Your task to perform on an android device: set default search engine in the chrome app Image 0: 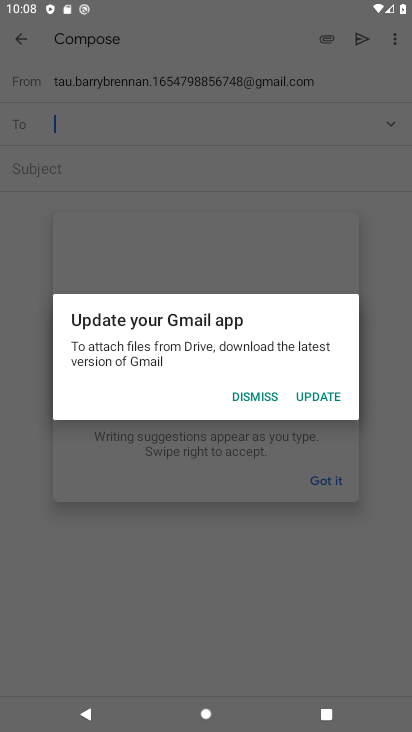
Step 0: press home button
Your task to perform on an android device: set default search engine in the chrome app Image 1: 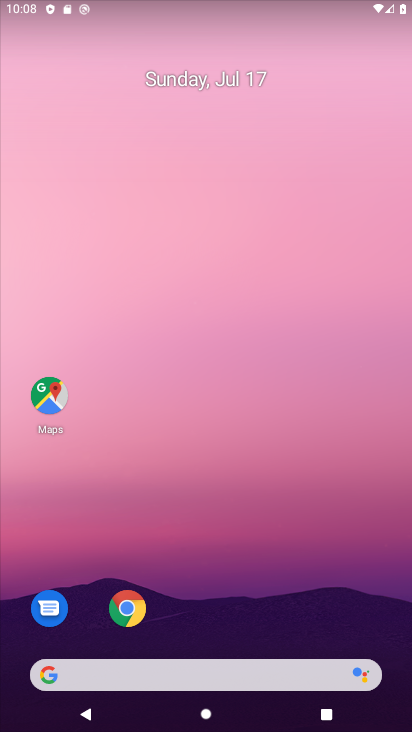
Step 1: drag from (204, 643) to (217, 81)
Your task to perform on an android device: set default search engine in the chrome app Image 2: 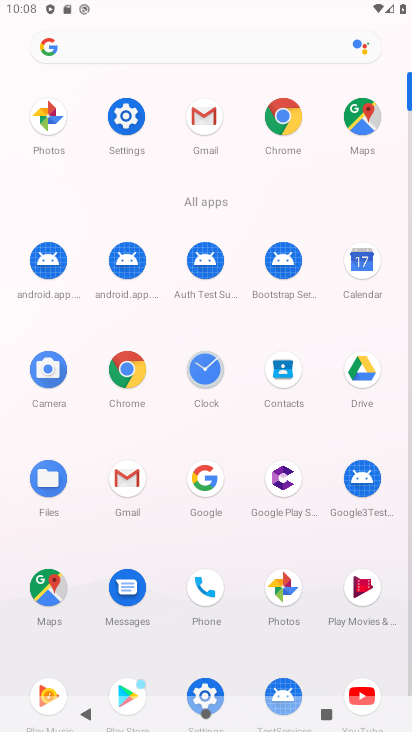
Step 2: click (127, 371)
Your task to perform on an android device: set default search engine in the chrome app Image 3: 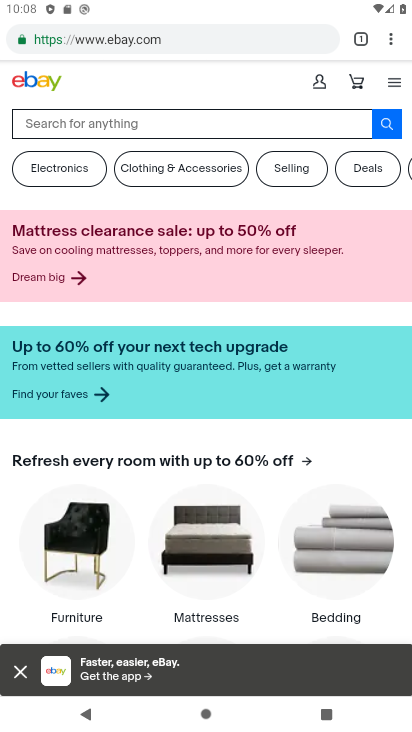
Step 3: click (387, 38)
Your task to perform on an android device: set default search engine in the chrome app Image 4: 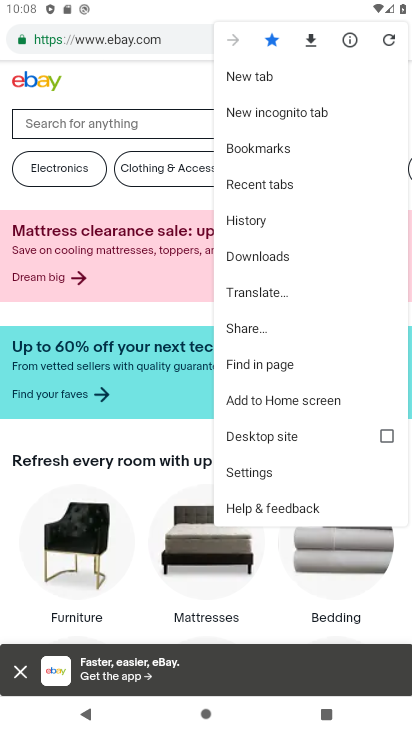
Step 4: click (266, 471)
Your task to perform on an android device: set default search engine in the chrome app Image 5: 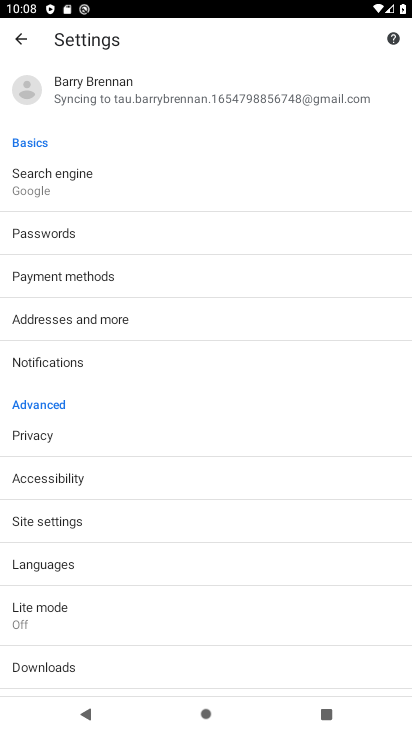
Step 5: click (135, 179)
Your task to perform on an android device: set default search engine in the chrome app Image 6: 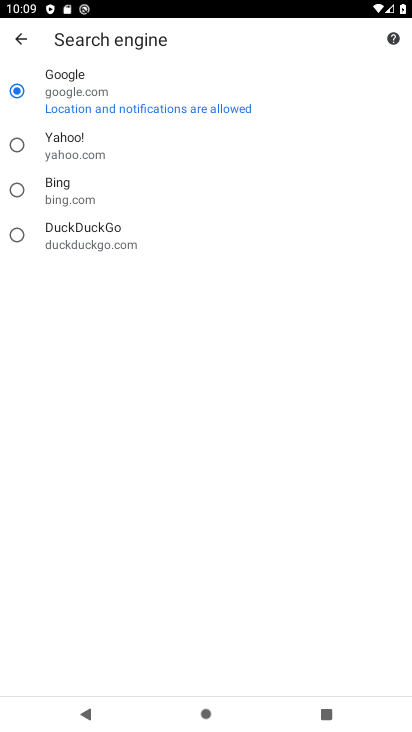
Step 6: click (16, 143)
Your task to perform on an android device: set default search engine in the chrome app Image 7: 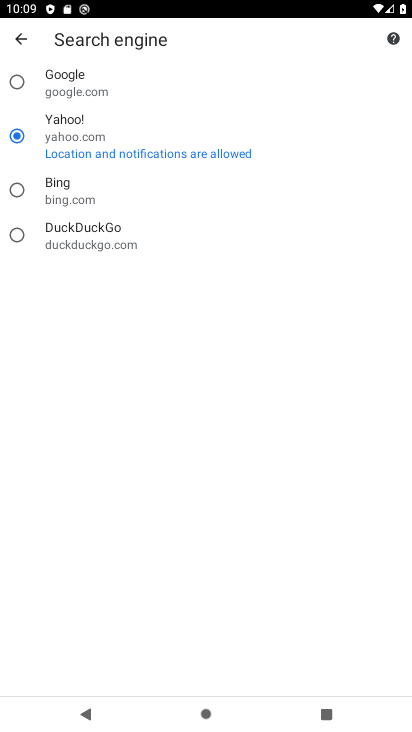
Step 7: task complete